Your task to perform on an android device: Open the calendar and show me this week's events? Image 0: 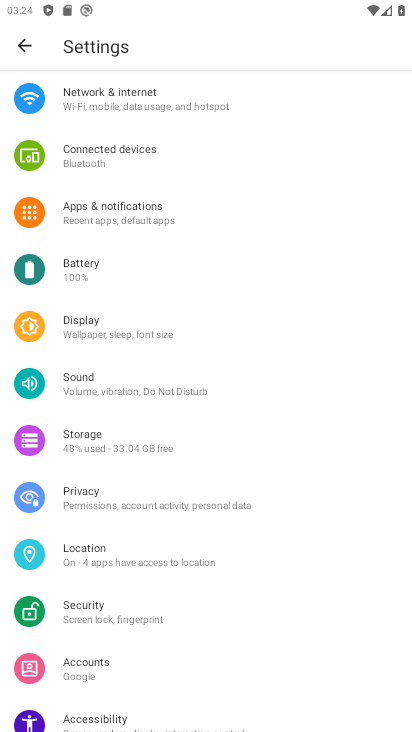
Step 0: press home button
Your task to perform on an android device: Open the calendar and show me this week's events? Image 1: 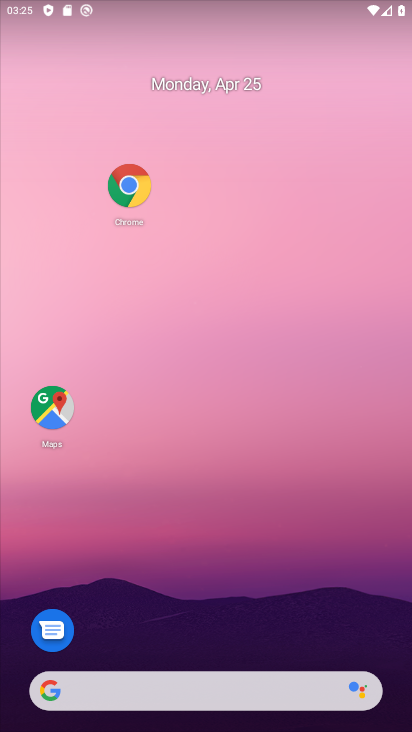
Step 1: drag from (135, 626) to (170, 98)
Your task to perform on an android device: Open the calendar and show me this week's events? Image 2: 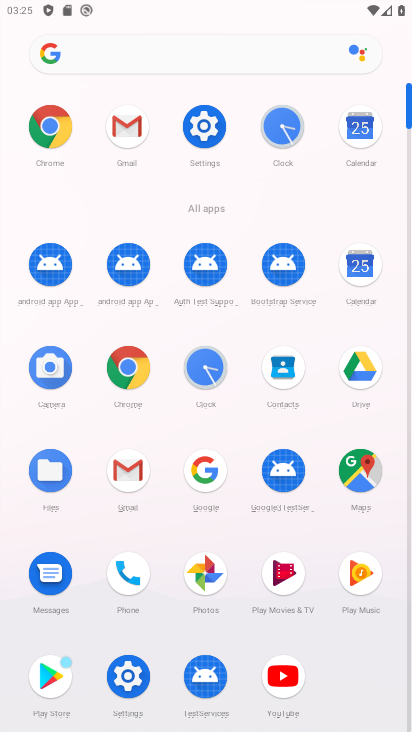
Step 2: click (359, 271)
Your task to perform on an android device: Open the calendar and show me this week's events? Image 3: 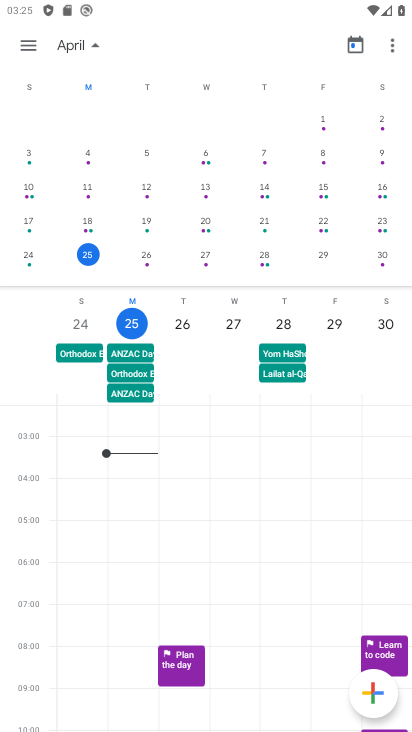
Step 3: click (146, 257)
Your task to perform on an android device: Open the calendar and show me this week's events? Image 4: 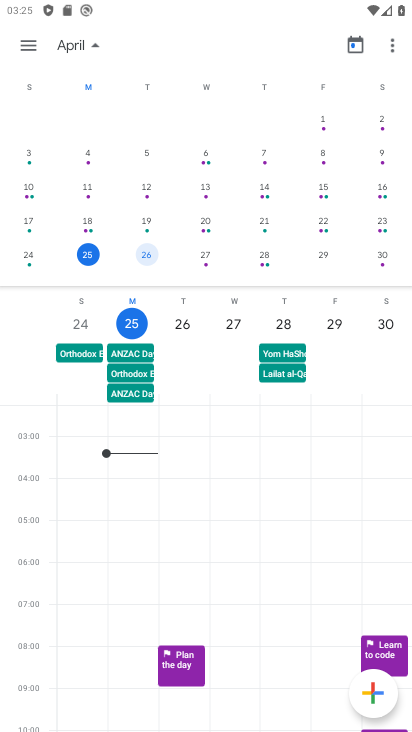
Step 4: click (209, 258)
Your task to perform on an android device: Open the calendar and show me this week's events? Image 5: 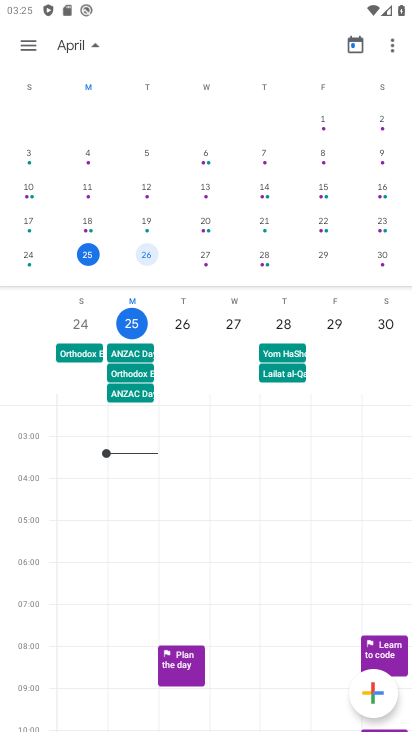
Step 5: click (200, 257)
Your task to perform on an android device: Open the calendar and show me this week's events? Image 6: 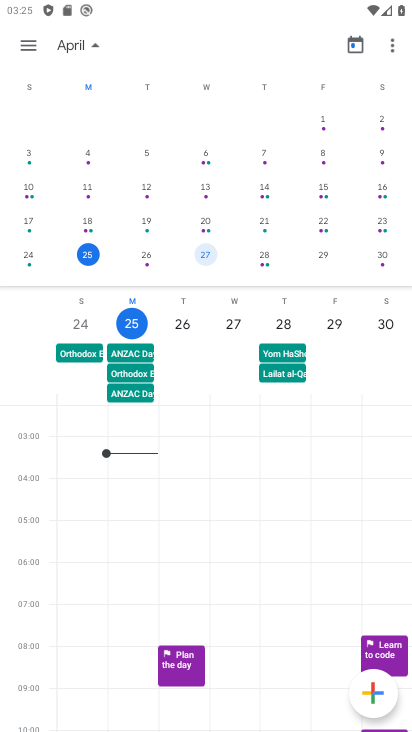
Step 6: click (264, 252)
Your task to perform on an android device: Open the calendar and show me this week's events? Image 7: 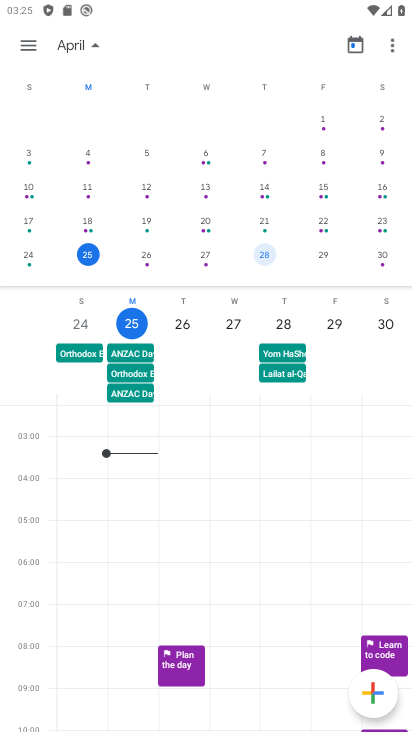
Step 7: click (317, 256)
Your task to perform on an android device: Open the calendar and show me this week's events? Image 8: 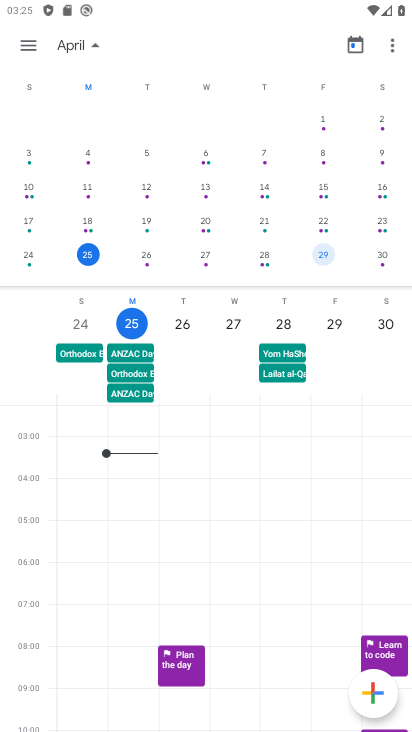
Step 8: click (385, 254)
Your task to perform on an android device: Open the calendar and show me this week's events? Image 9: 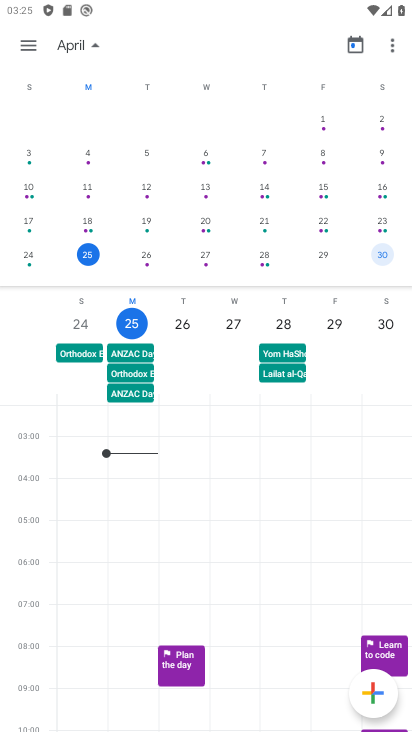
Step 9: task complete